Your task to perform on an android device: turn notification dots on Image 0: 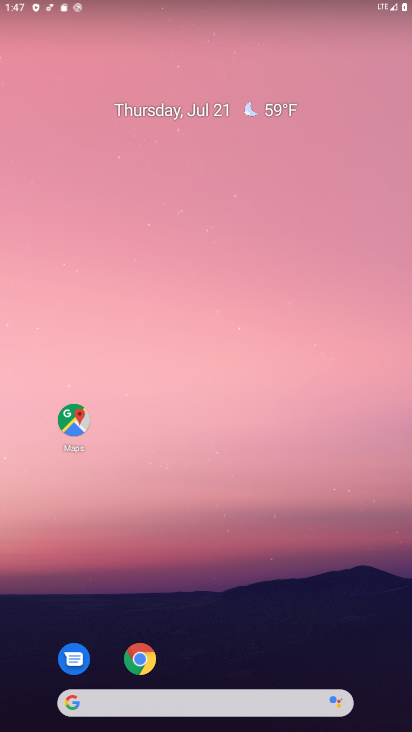
Step 0: drag from (207, 688) to (237, 44)
Your task to perform on an android device: turn notification dots on Image 1: 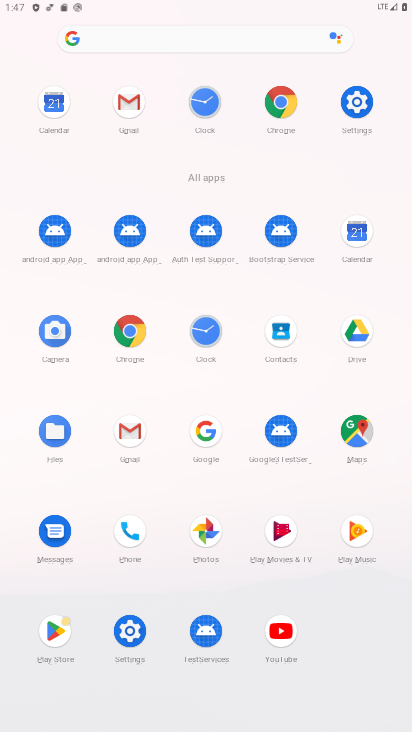
Step 1: click (132, 626)
Your task to perform on an android device: turn notification dots on Image 2: 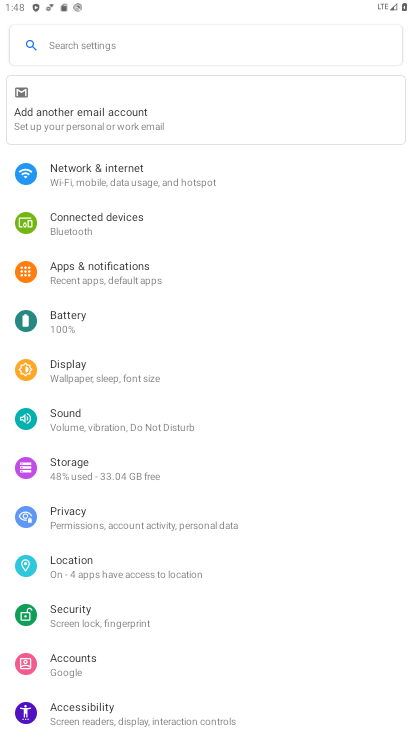
Step 2: click (154, 267)
Your task to perform on an android device: turn notification dots on Image 3: 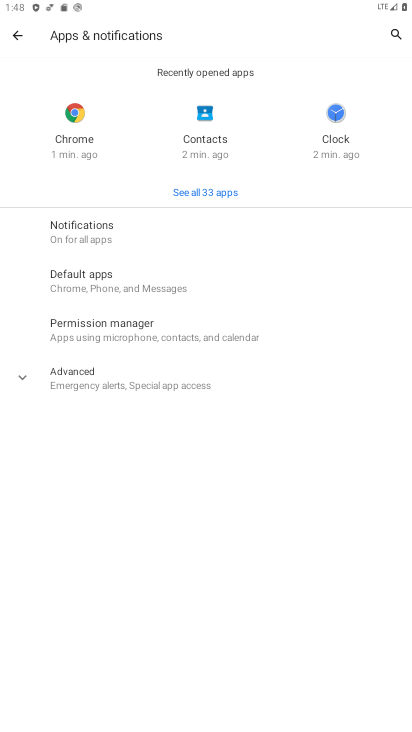
Step 3: click (64, 239)
Your task to perform on an android device: turn notification dots on Image 4: 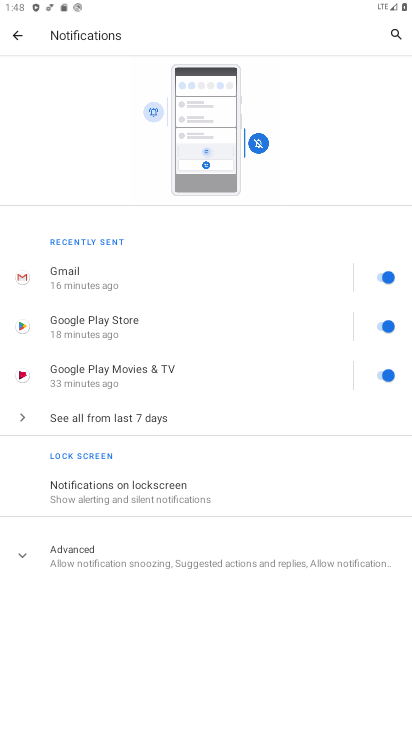
Step 4: click (138, 555)
Your task to perform on an android device: turn notification dots on Image 5: 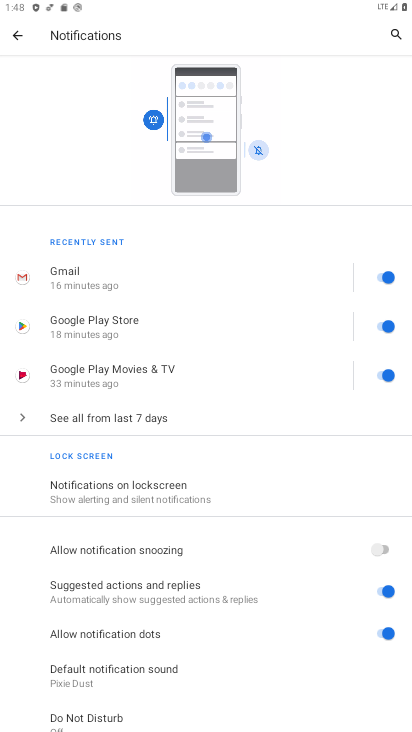
Step 5: task complete